Your task to perform on an android device: turn on javascript in the chrome app Image 0: 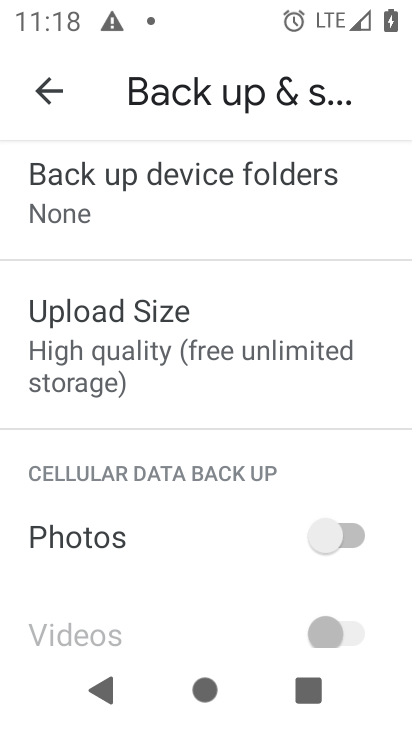
Step 0: press home button
Your task to perform on an android device: turn on javascript in the chrome app Image 1: 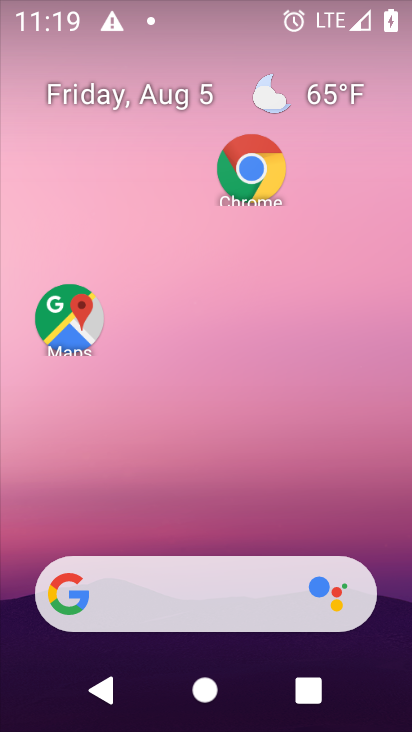
Step 1: click (218, 176)
Your task to perform on an android device: turn on javascript in the chrome app Image 2: 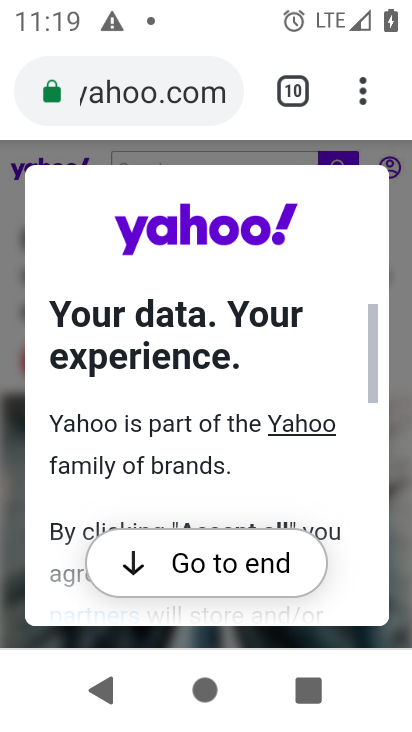
Step 2: click (366, 101)
Your task to perform on an android device: turn on javascript in the chrome app Image 3: 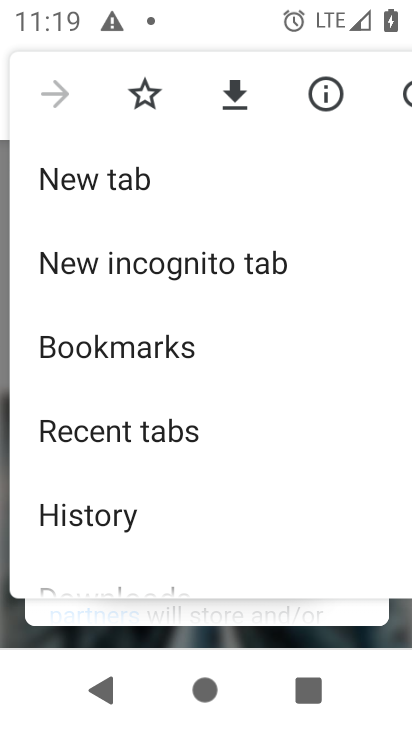
Step 3: drag from (205, 535) to (225, 165)
Your task to perform on an android device: turn on javascript in the chrome app Image 4: 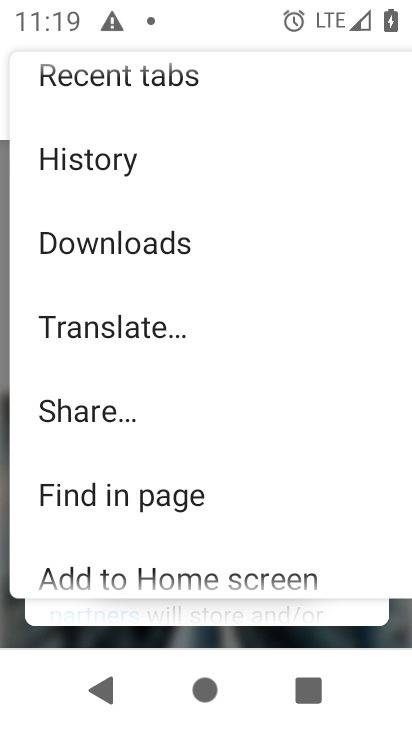
Step 4: drag from (178, 505) to (186, 174)
Your task to perform on an android device: turn on javascript in the chrome app Image 5: 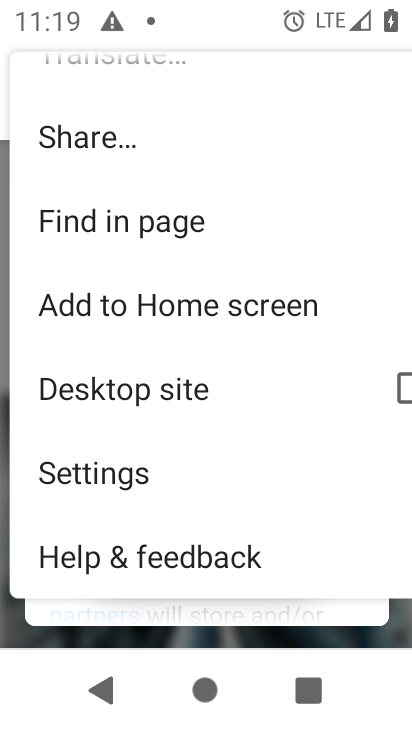
Step 5: click (144, 477)
Your task to perform on an android device: turn on javascript in the chrome app Image 6: 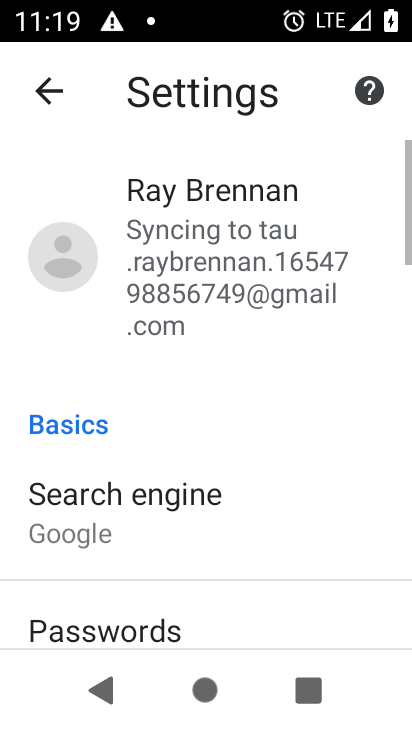
Step 6: drag from (195, 559) to (205, 177)
Your task to perform on an android device: turn on javascript in the chrome app Image 7: 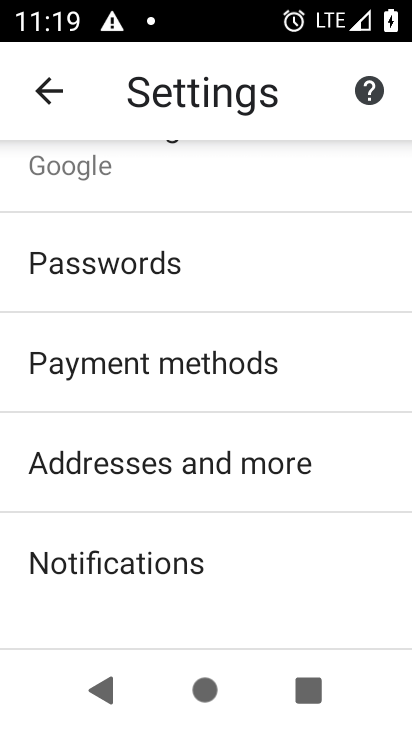
Step 7: drag from (224, 536) to (226, 264)
Your task to perform on an android device: turn on javascript in the chrome app Image 8: 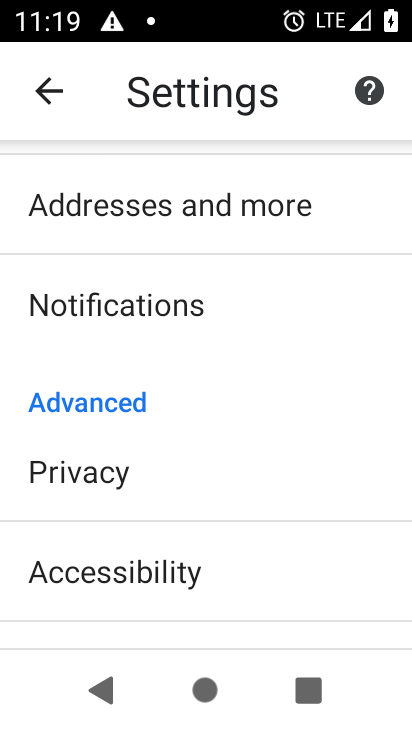
Step 8: drag from (234, 554) to (234, 194)
Your task to perform on an android device: turn on javascript in the chrome app Image 9: 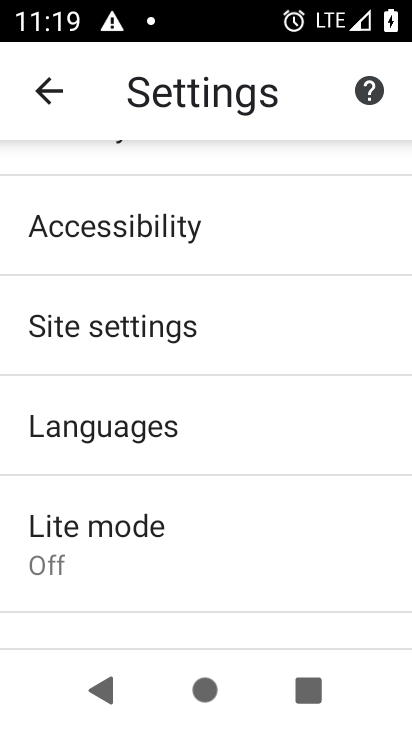
Step 9: click (174, 321)
Your task to perform on an android device: turn on javascript in the chrome app Image 10: 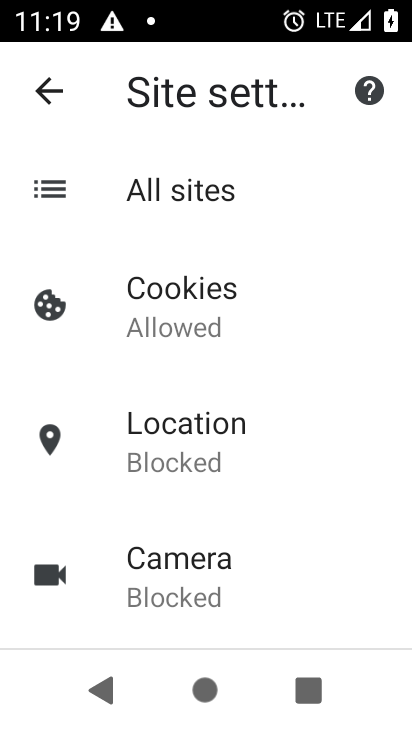
Step 10: drag from (238, 523) to (238, 204)
Your task to perform on an android device: turn on javascript in the chrome app Image 11: 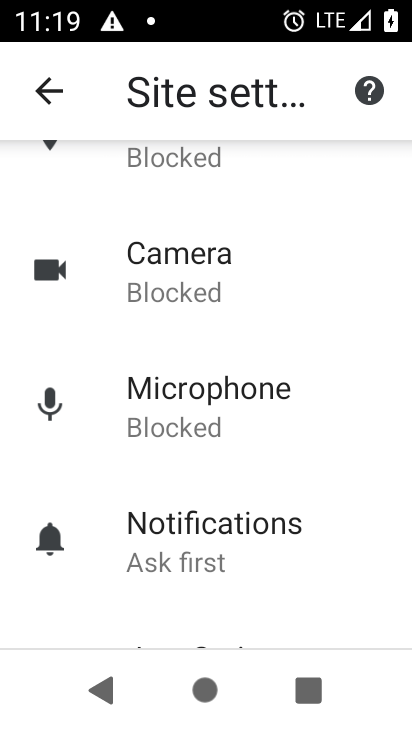
Step 11: drag from (210, 547) to (216, 239)
Your task to perform on an android device: turn on javascript in the chrome app Image 12: 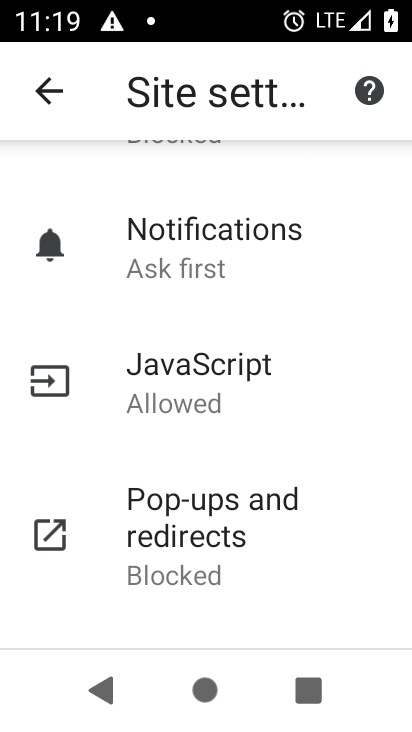
Step 12: click (225, 352)
Your task to perform on an android device: turn on javascript in the chrome app Image 13: 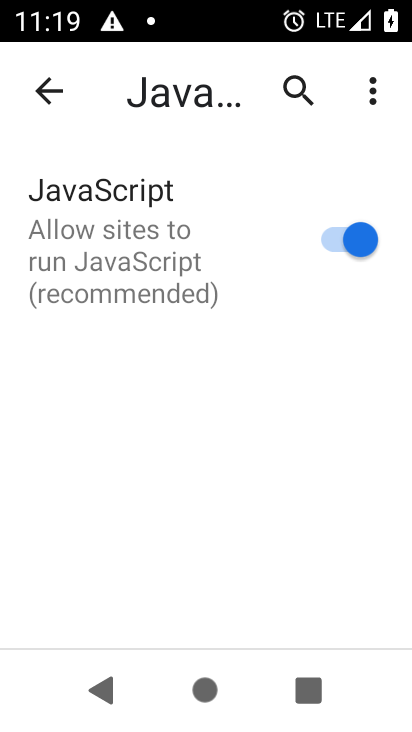
Step 13: task complete